Your task to perform on an android device: delete a single message in the gmail app Image 0: 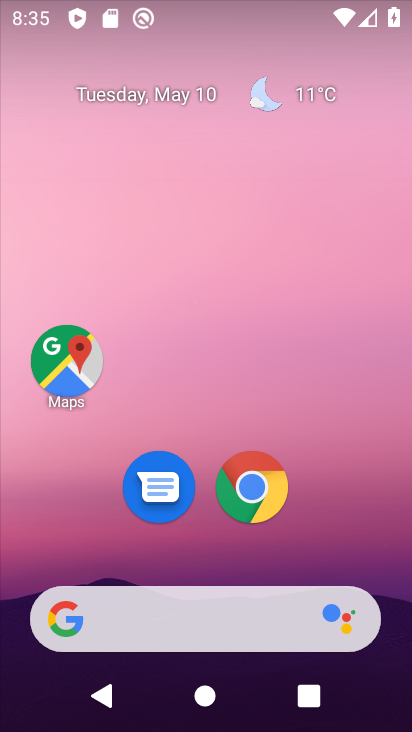
Step 0: drag from (197, 444) to (278, 186)
Your task to perform on an android device: delete a single message in the gmail app Image 1: 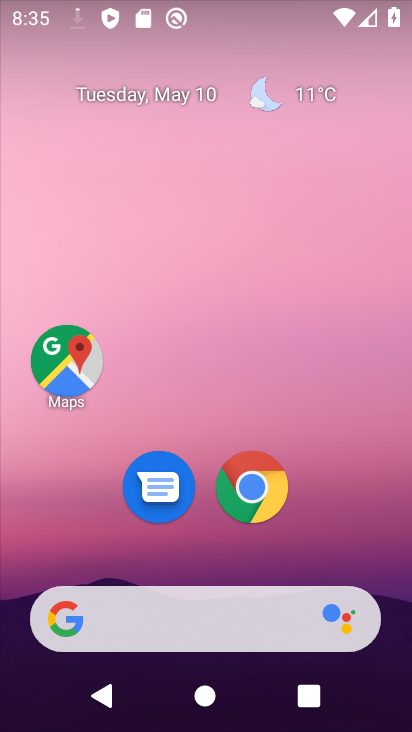
Step 1: drag from (190, 593) to (325, 85)
Your task to perform on an android device: delete a single message in the gmail app Image 2: 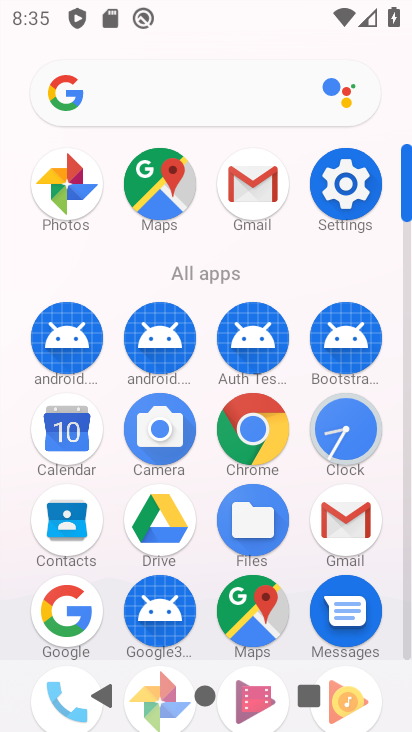
Step 2: click (349, 513)
Your task to perform on an android device: delete a single message in the gmail app Image 3: 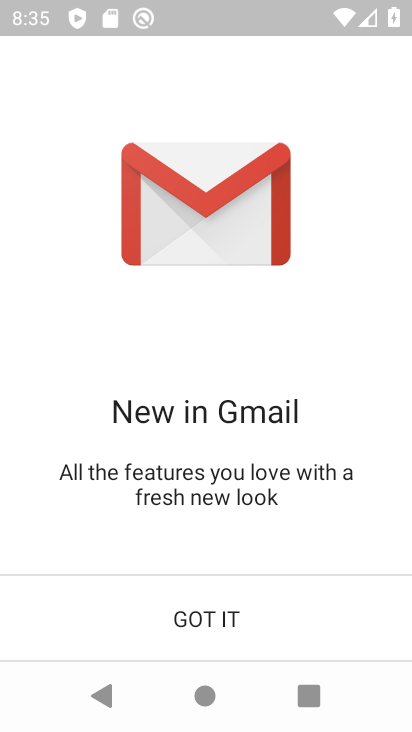
Step 3: click (254, 614)
Your task to perform on an android device: delete a single message in the gmail app Image 4: 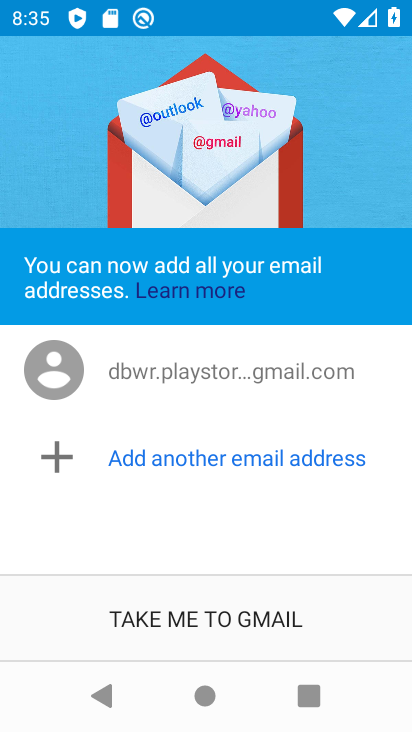
Step 4: click (203, 627)
Your task to perform on an android device: delete a single message in the gmail app Image 5: 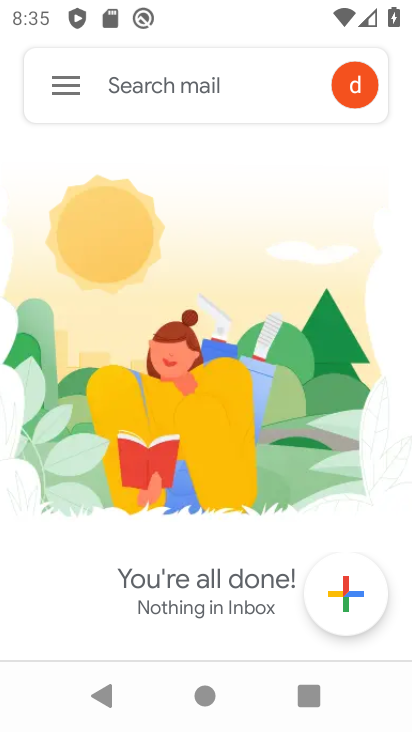
Step 5: click (81, 83)
Your task to perform on an android device: delete a single message in the gmail app Image 6: 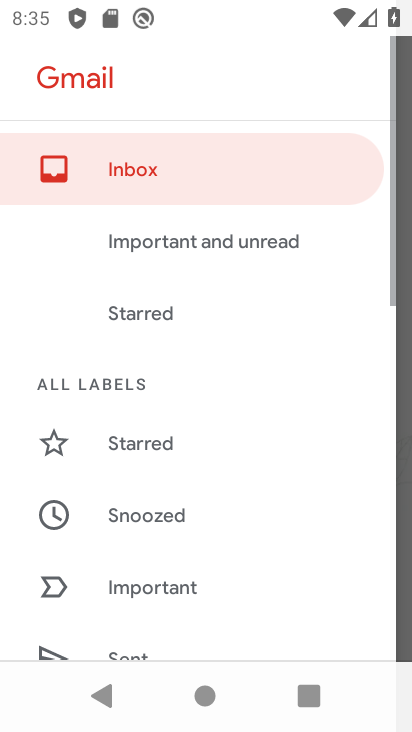
Step 6: drag from (137, 564) to (268, 213)
Your task to perform on an android device: delete a single message in the gmail app Image 7: 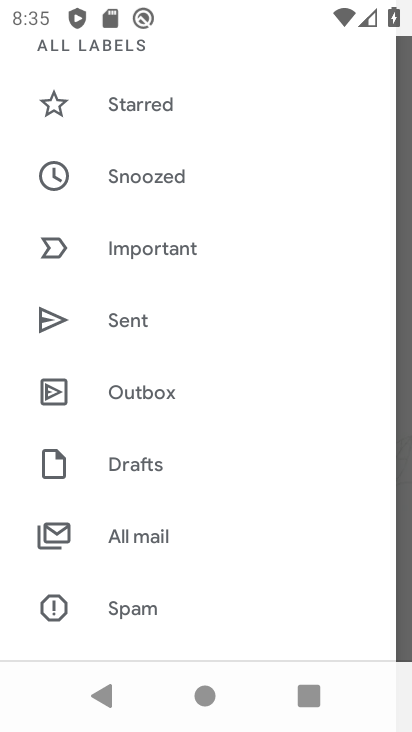
Step 7: click (160, 538)
Your task to perform on an android device: delete a single message in the gmail app Image 8: 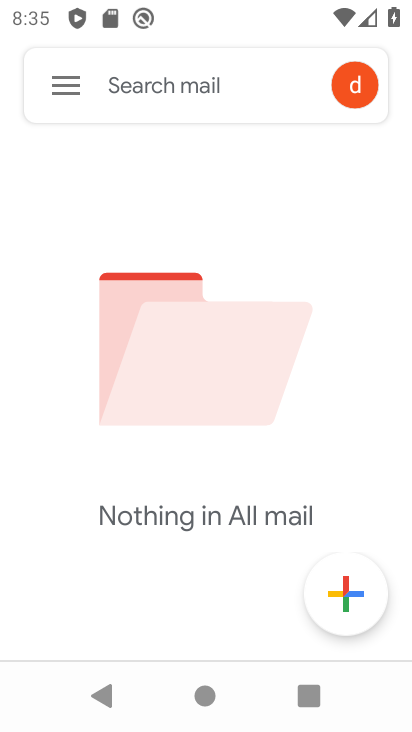
Step 8: task complete